Your task to perform on an android device: Search for Mexican restaurants on Maps Image 0: 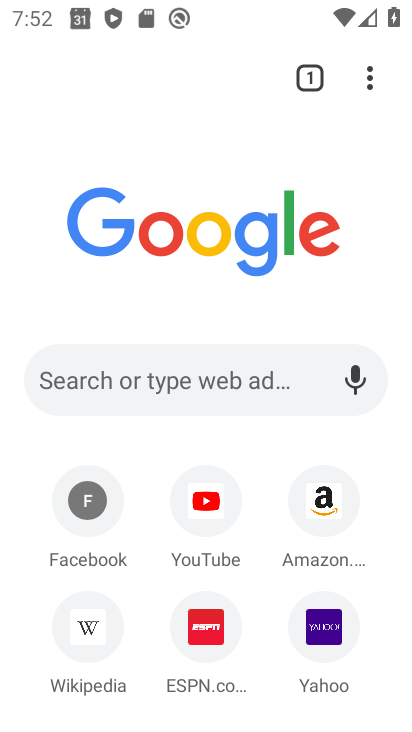
Step 0: press home button
Your task to perform on an android device: Search for Mexican restaurants on Maps Image 1: 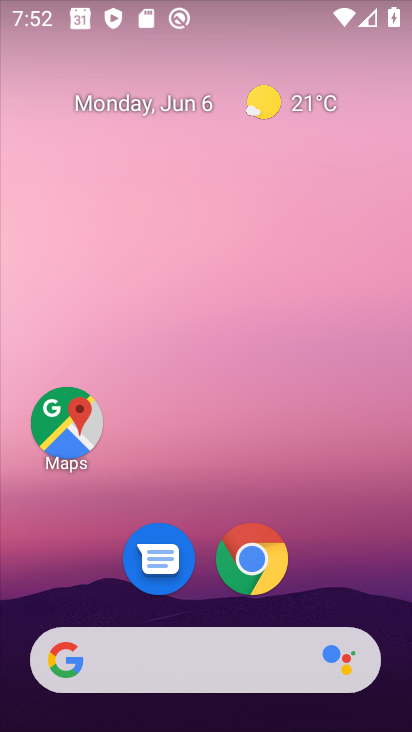
Step 1: drag from (208, 726) to (205, 132)
Your task to perform on an android device: Search for Mexican restaurants on Maps Image 2: 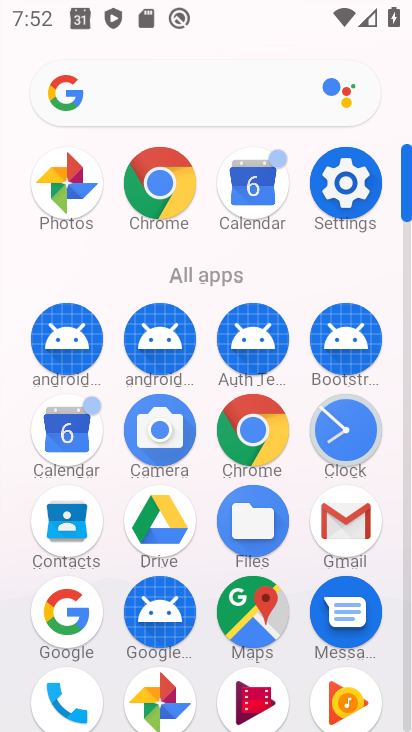
Step 2: drag from (201, 687) to (218, 322)
Your task to perform on an android device: Search for Mexican restaurants on Maps Image 3: 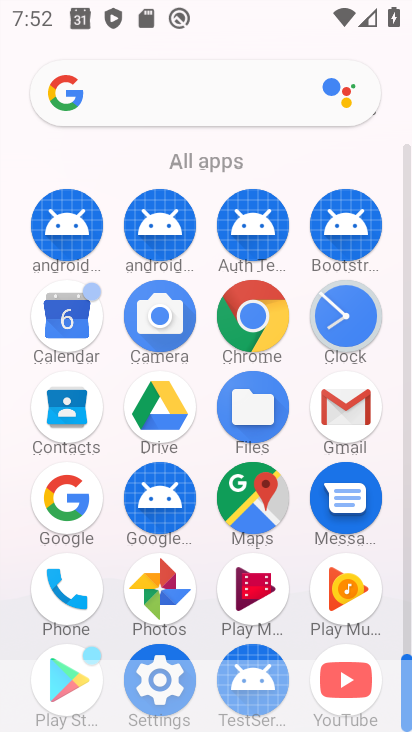
Step 3: click (256, 495)
Your task to perform on an android device: Search for Mexican restaurants on Maps Image 4: 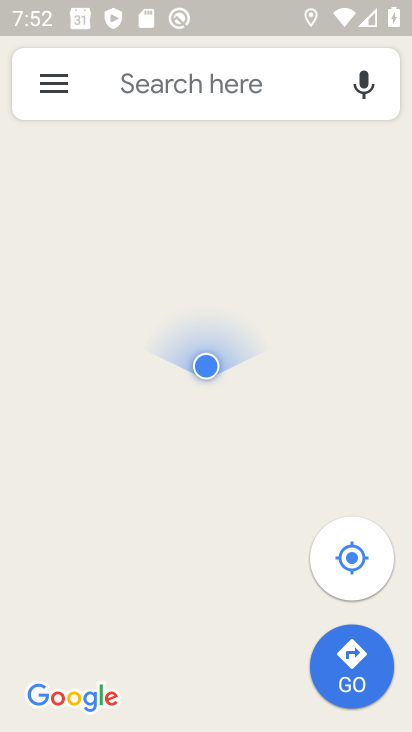
Step 4: click (184, 87)
Your task to perform on an android device: Search for Mexican restaurants on Maps Image 5: 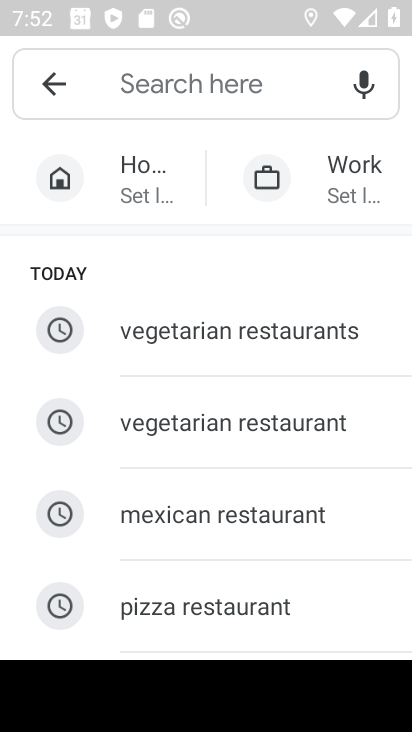
Step 5: type "Mexican restaurants"
Your task to perform on an android device: Search for Mexican restaurants on Maps Image 6: 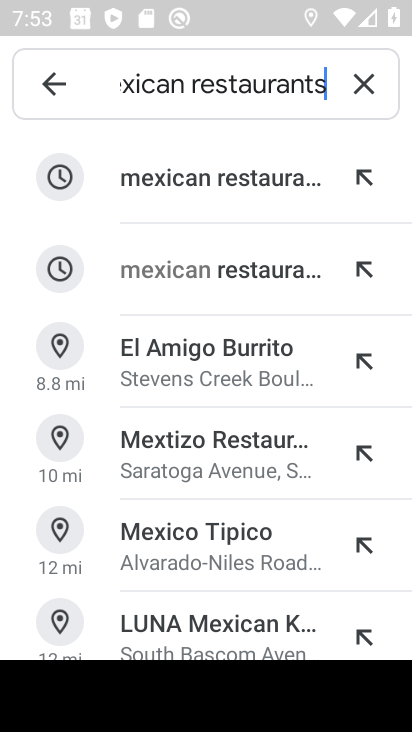
Step 6: click (265, 184)
Your task to perform on an android device: Search for Mexican restaurants on Maps Image 7: 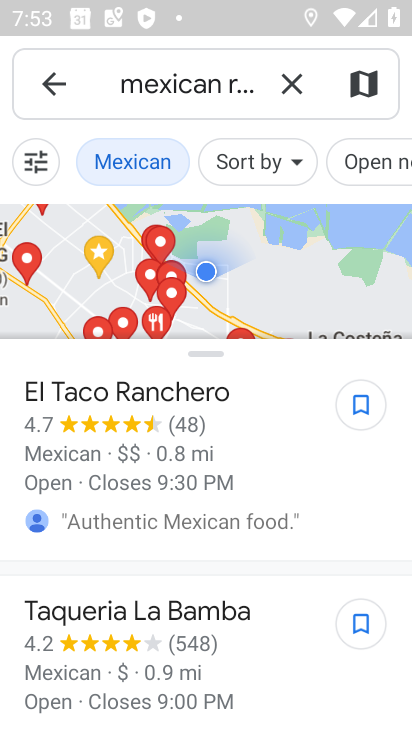
Step 7: task complete